Your task to perform on an android device: Show me productivity apps on the Play Store Image 0: 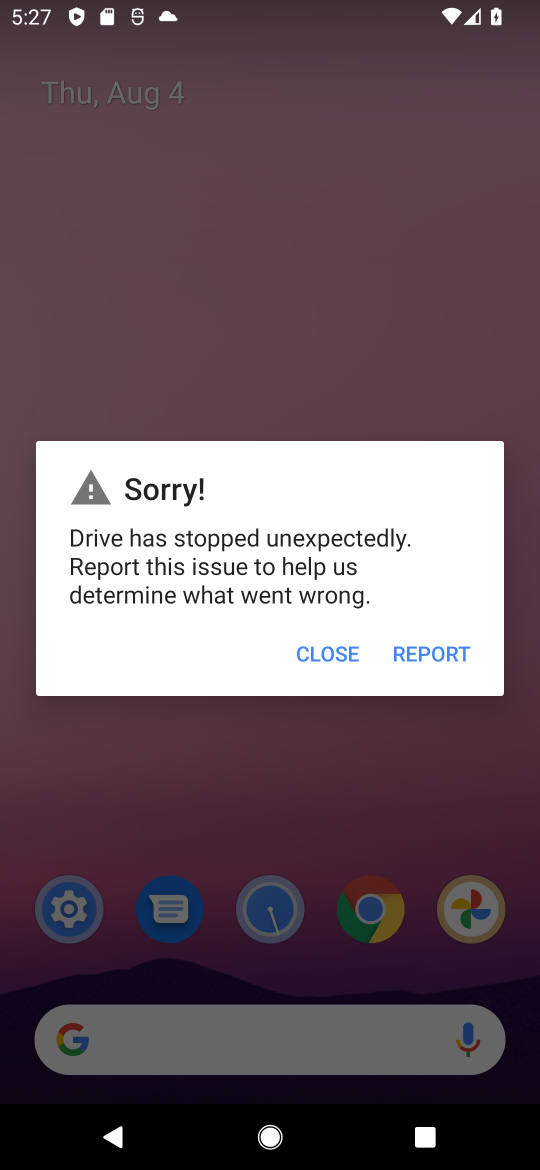
Step 0: press home button
Your task to perform on an android device: Show me productivity apps on the Play Store Image 1: 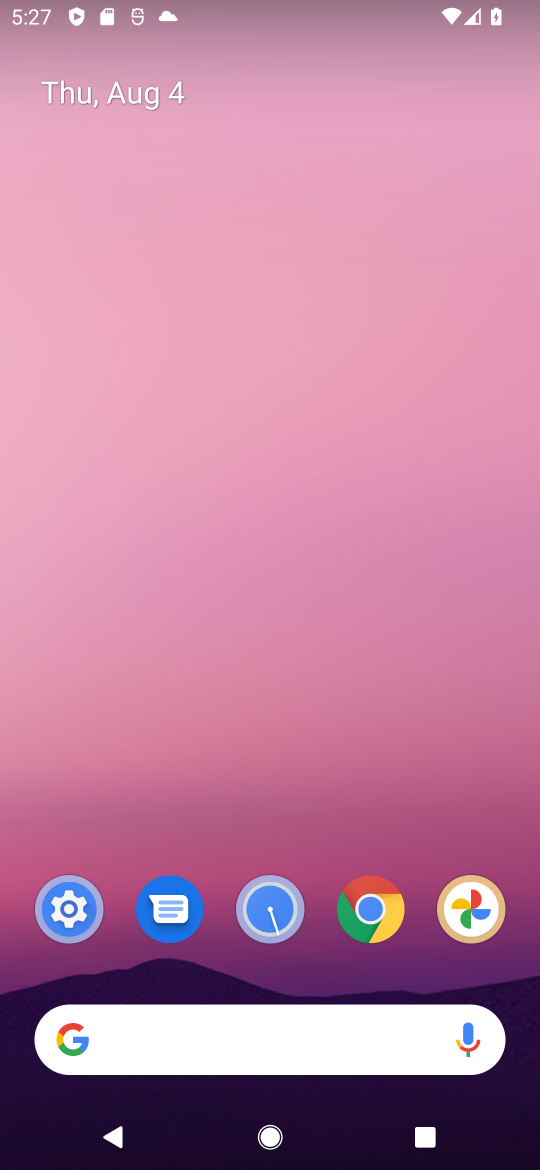
Step 1: drag from (169, 1029) to (223, 231)
Your task to perform on an android device: Show me productivity apps on the Play Store Image 2: 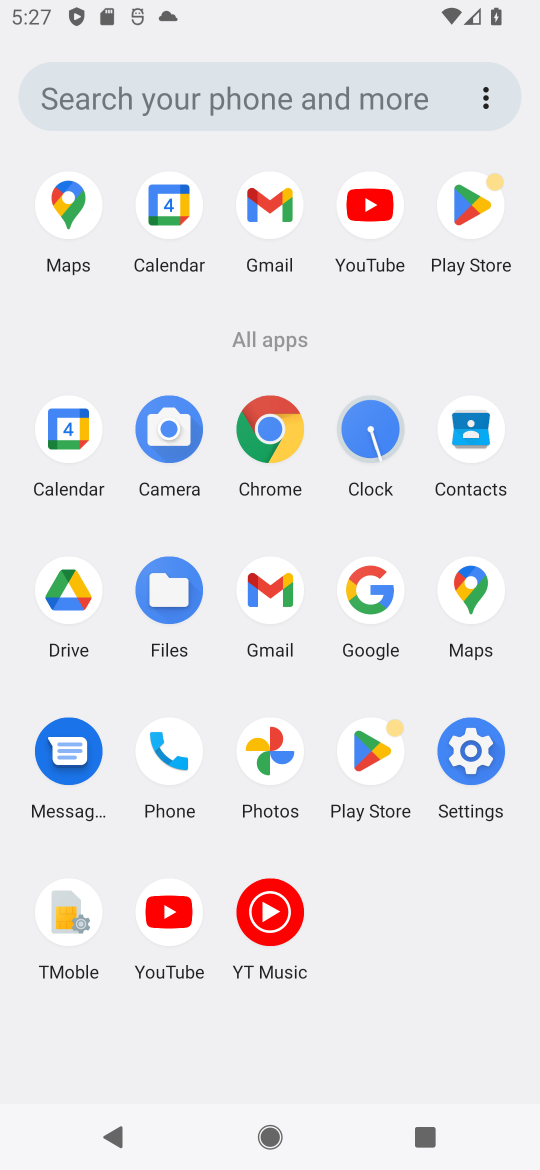
Step 2: click (470, 208)
Your task to perform on an android device: Show me productivity apps on the Play Store Image 3: 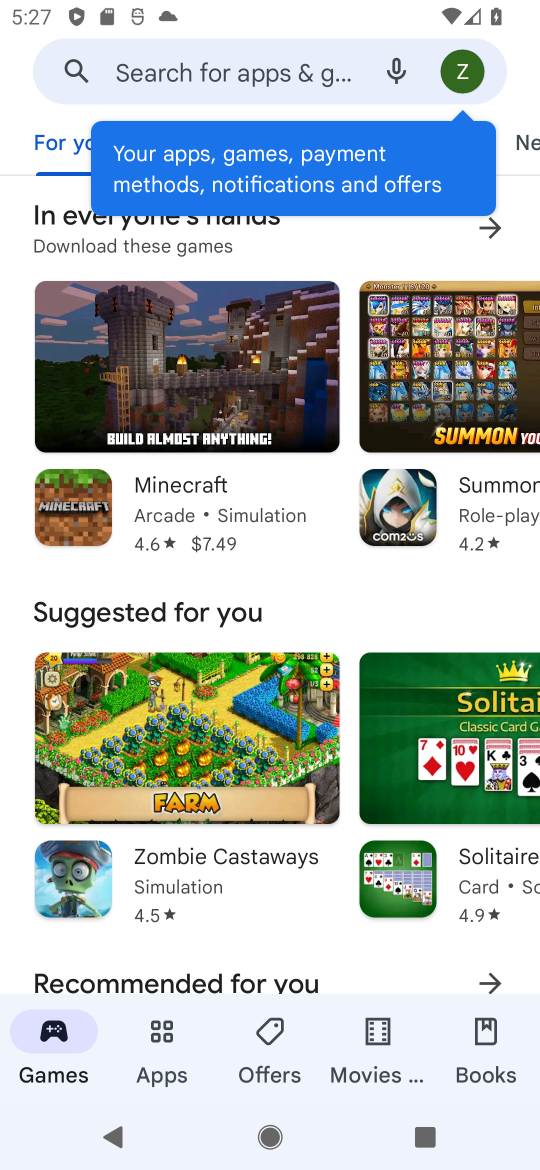
Step 3: click (163, 1038)
Your task to perform on an android device: Show me productivity apps on the Play Store Image 4: 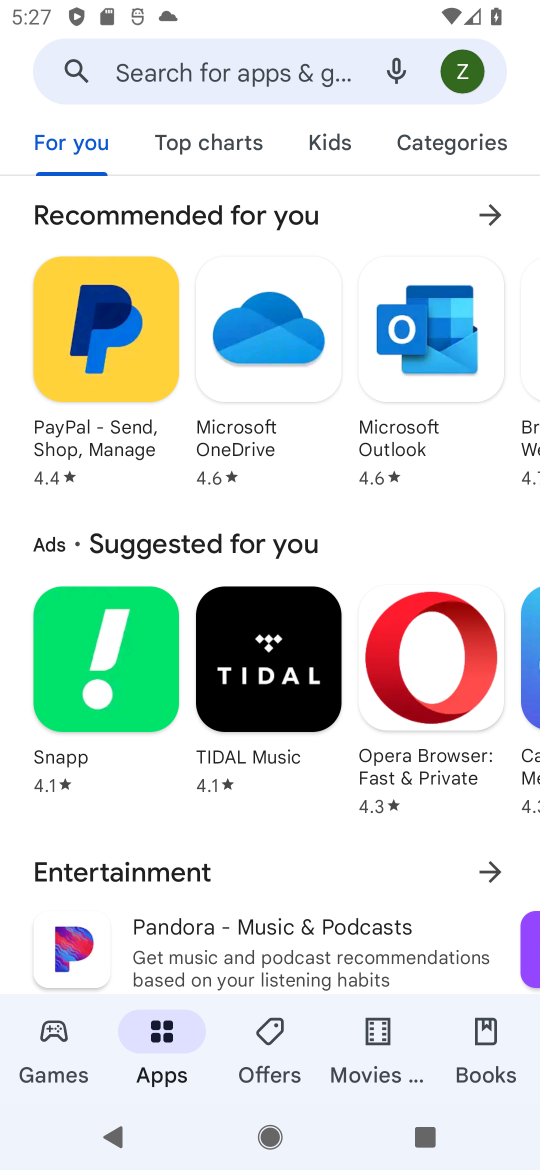
Step 4: click (486, 147)
Your task to perform on an android device: Show me productivity apps on the Play Store Image 5: 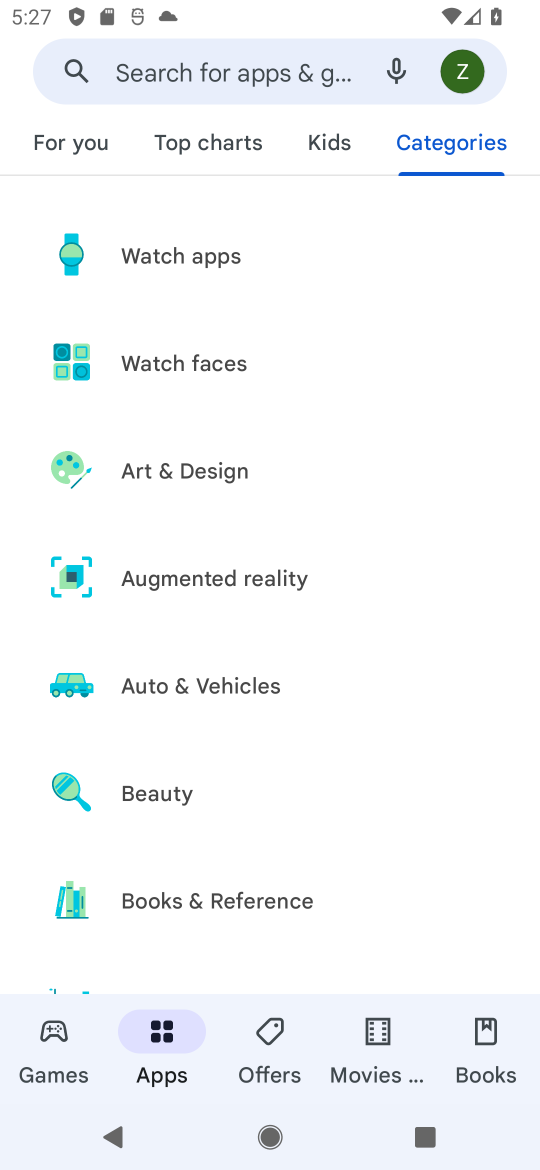
Step 5: drag from (211, 774) to (249, 578)
Your task to perform on an android device: Show me productivity apps on the Play Store Image 6: 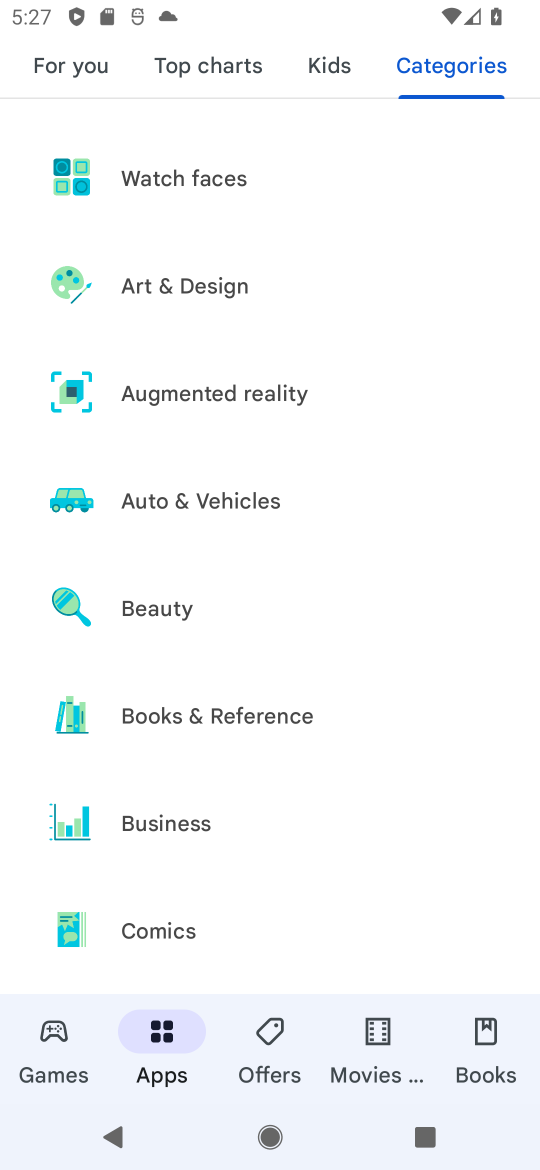
Step 6: drag from (243, 761) to (236, 622)
Your task to perform on an android device: Show me productivity apps on the Play Store Image 7: 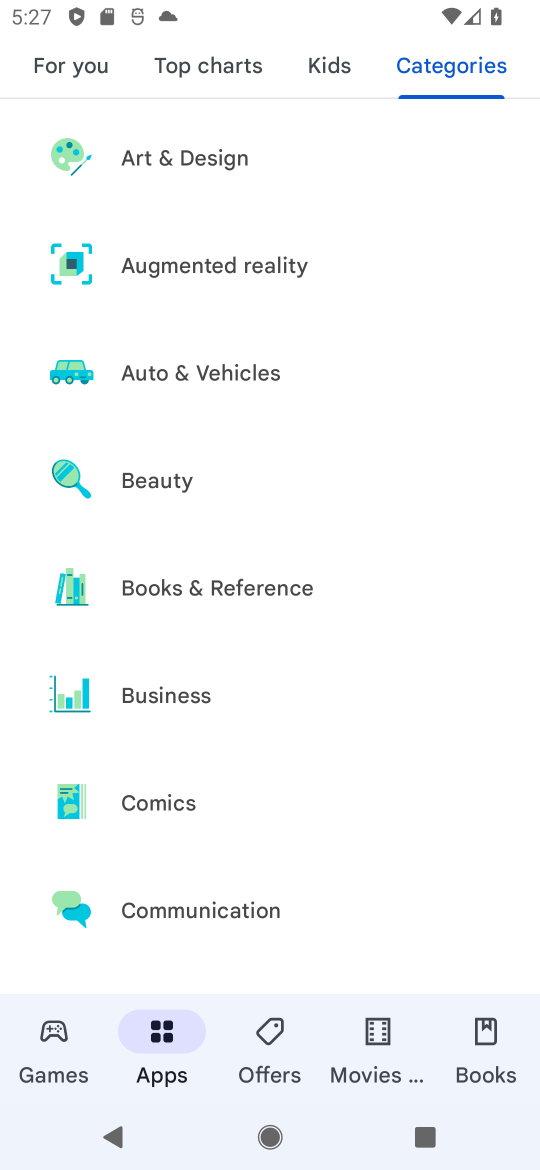
Step 7: drag from (202, 735) to (270, 584)
Your task to perform on an android device: Show me productivity apps on the Play Store Image 8: 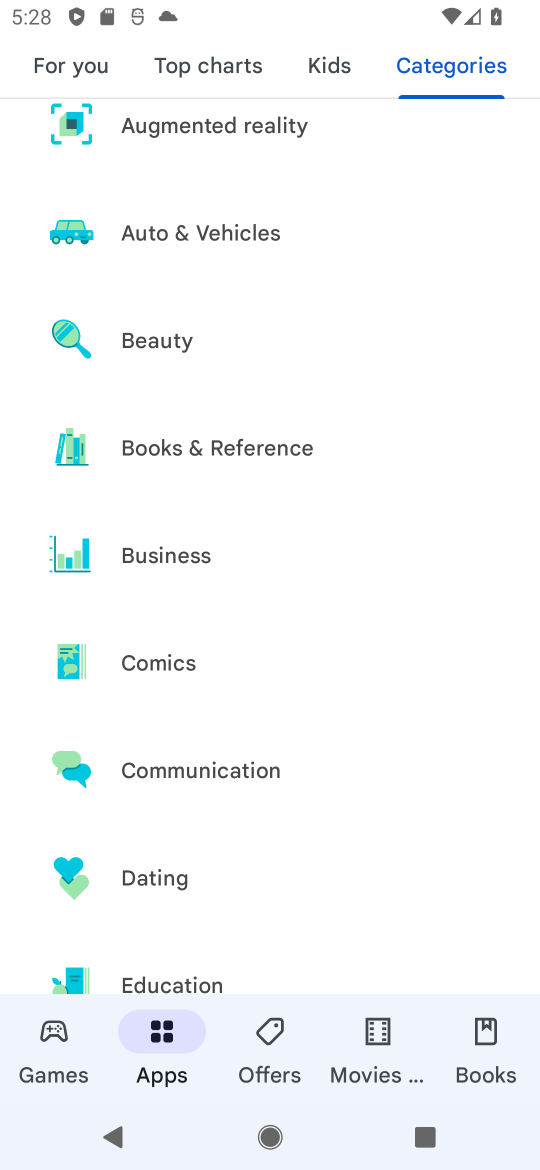
Step 8: drag from (210, 741) to (283, 588)
Your task to perform on an android device: Show me productivity apps on the Play Store Image 9: 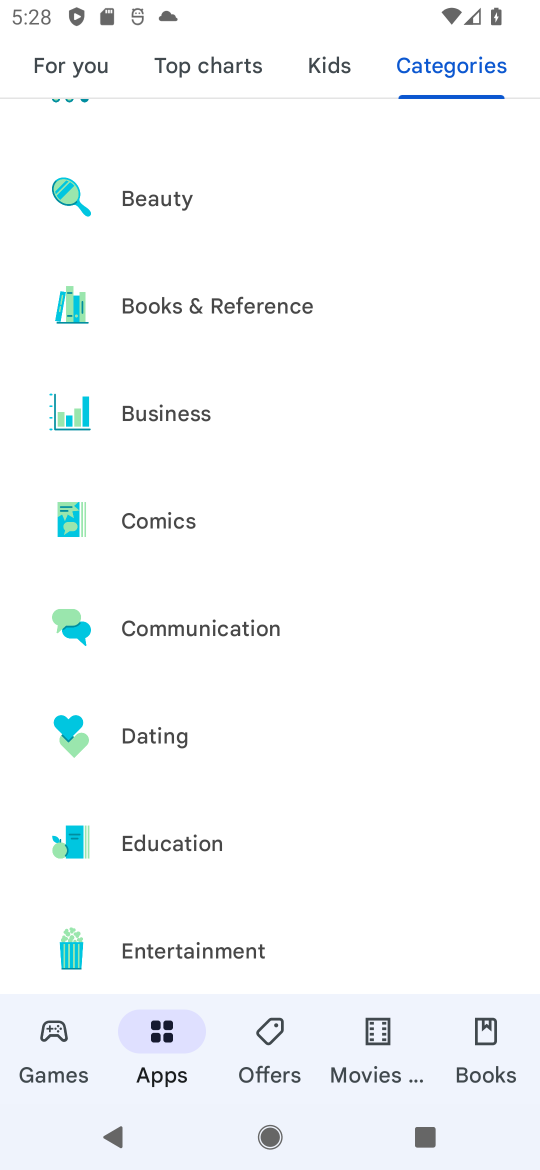
Step 9: drag from (168, 781) to (231, 629)
Your task to perform on an android device: Show me productivity apps on the Play Store Image 10: 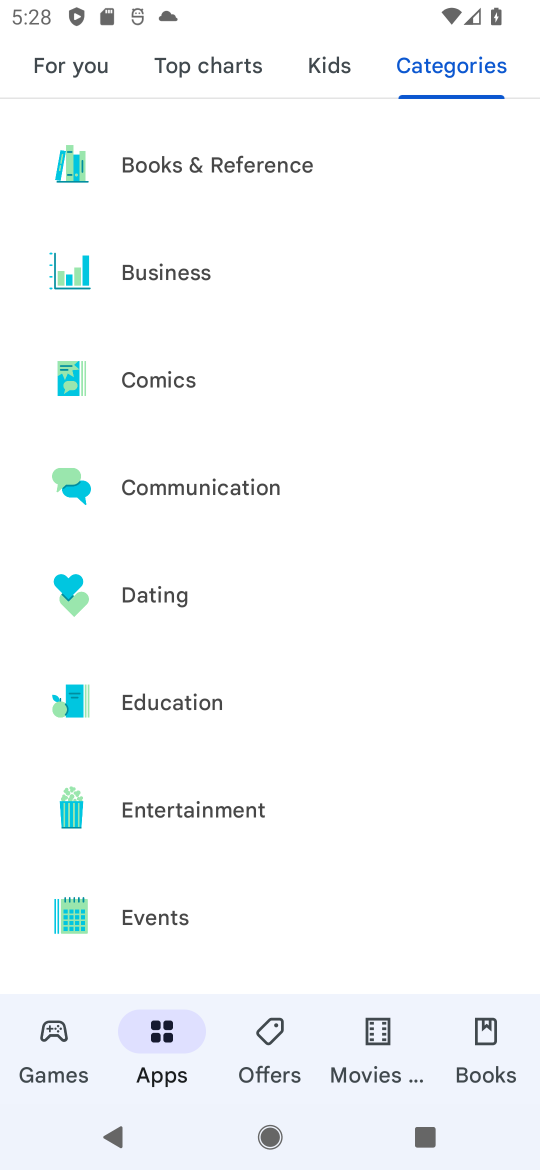
Step 10: drag from (154, 771) to (212, 615)
Your task to perform on an android device: Show me productivity apps on the Play Store Image 11: 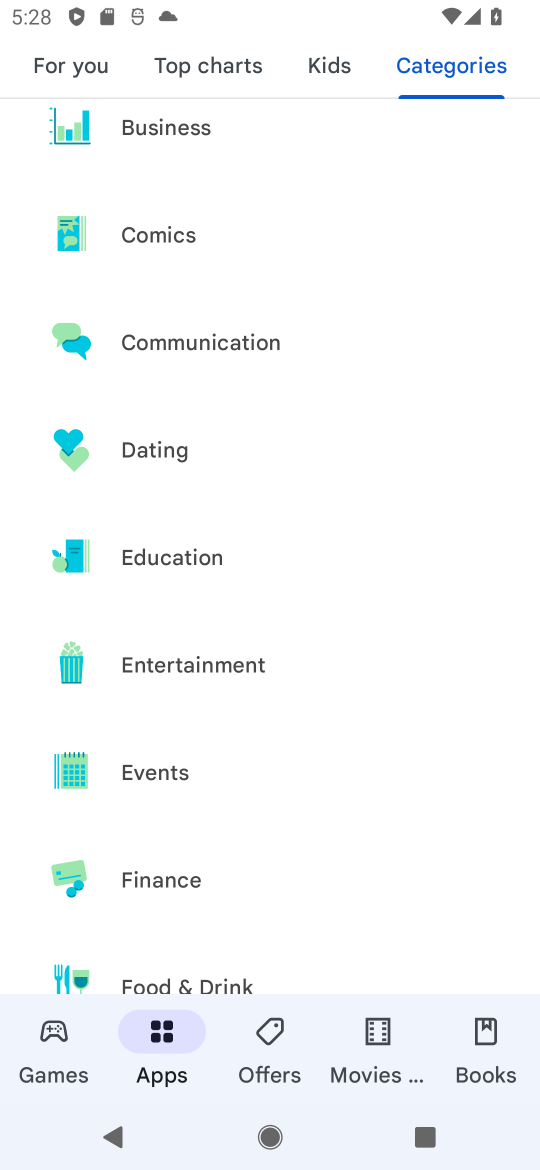
Step 11: drag from (130, 824) to (189, 661)
Your task to perform on an android device: Show me productivity apps on the Play Store Image 12: 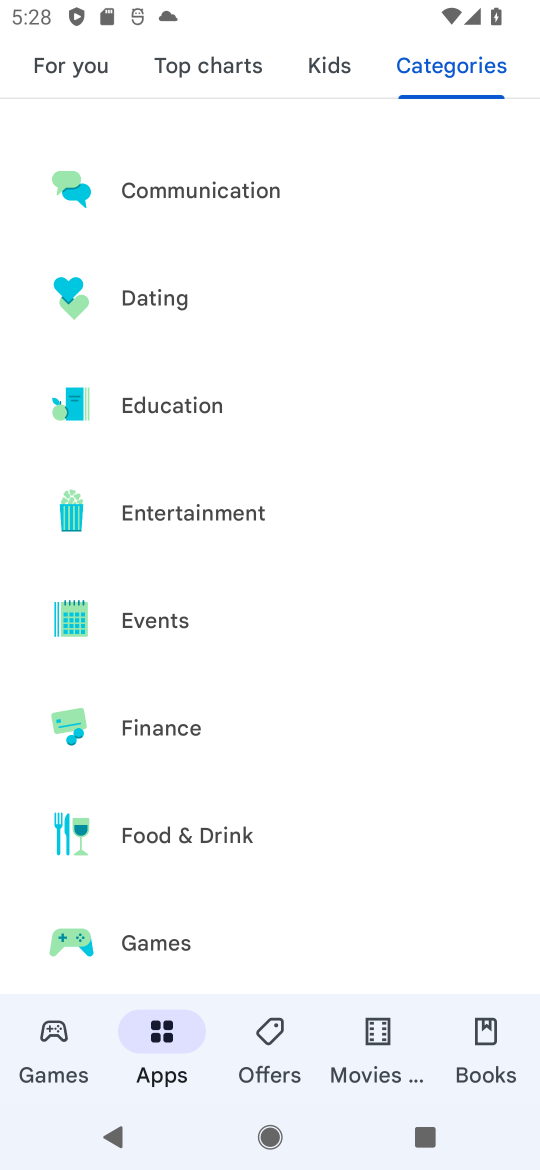
Step 12: drag from (128, 764) to (195, 604)
Your task to perform on an android device: Show me productivity apps on the Play Store Image 13: 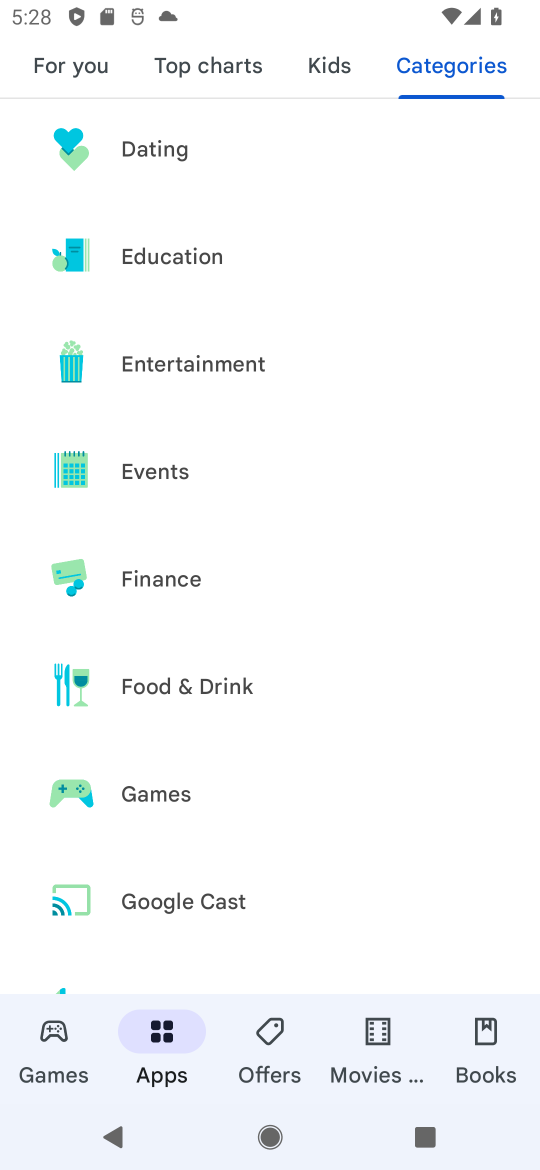
Step 13: drag from (127, 757) to (210, 588)
Your task to perform on an android device: Show me productivity apps on the Play Store Image 14: 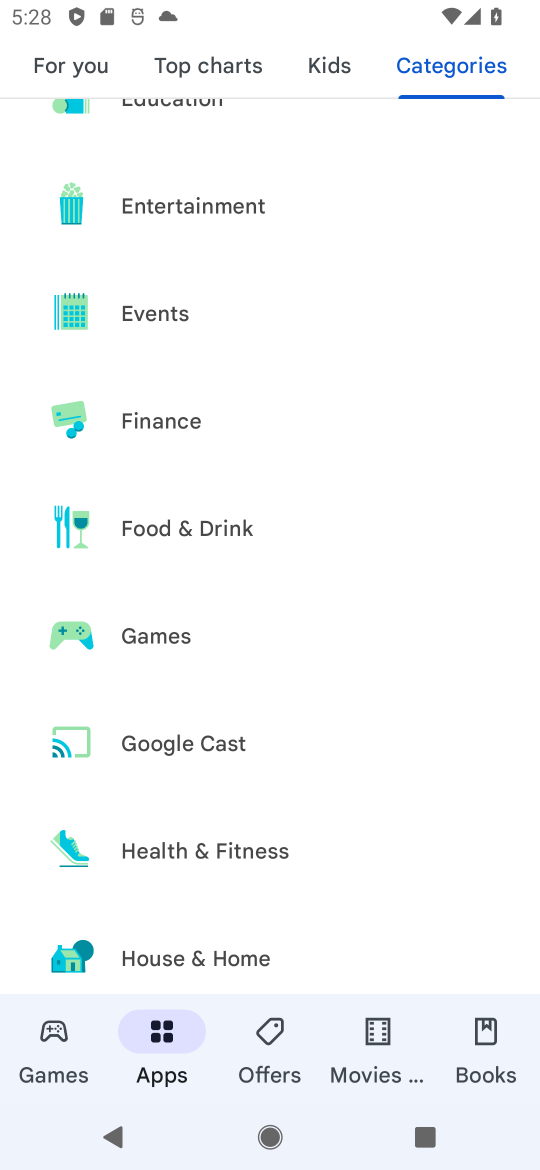
Step 14: drag from (153, 707) to (254, 559)
Your task to perform on an android device: Show me productivity apps on the Play Store Image 15: 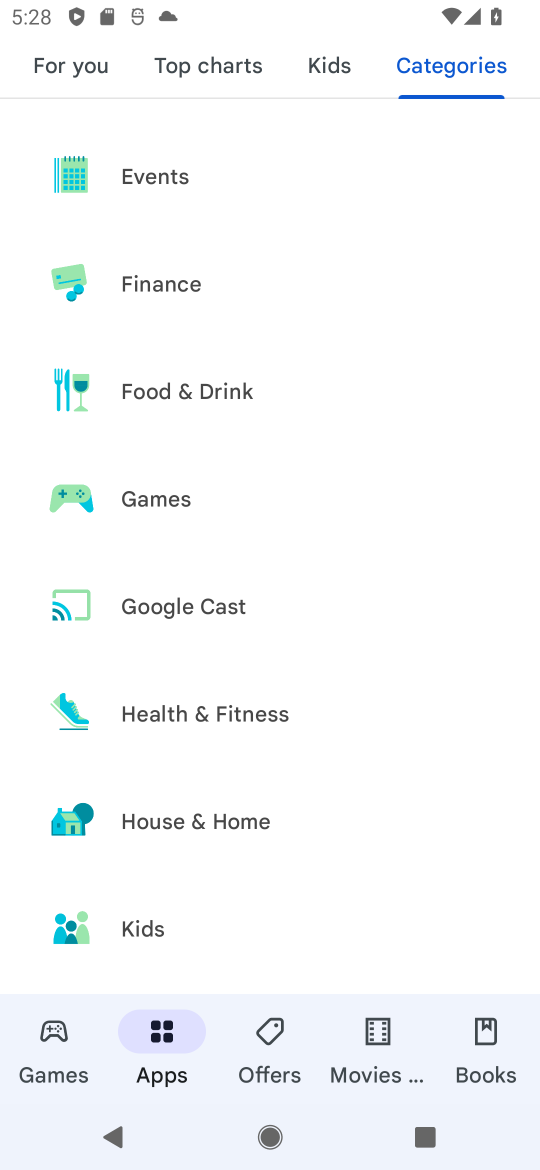
Step 15: drag from (138, 760) to (199, 596)
Your task to perform on an android device: Show me productivity apps on the Play Store Image 16: 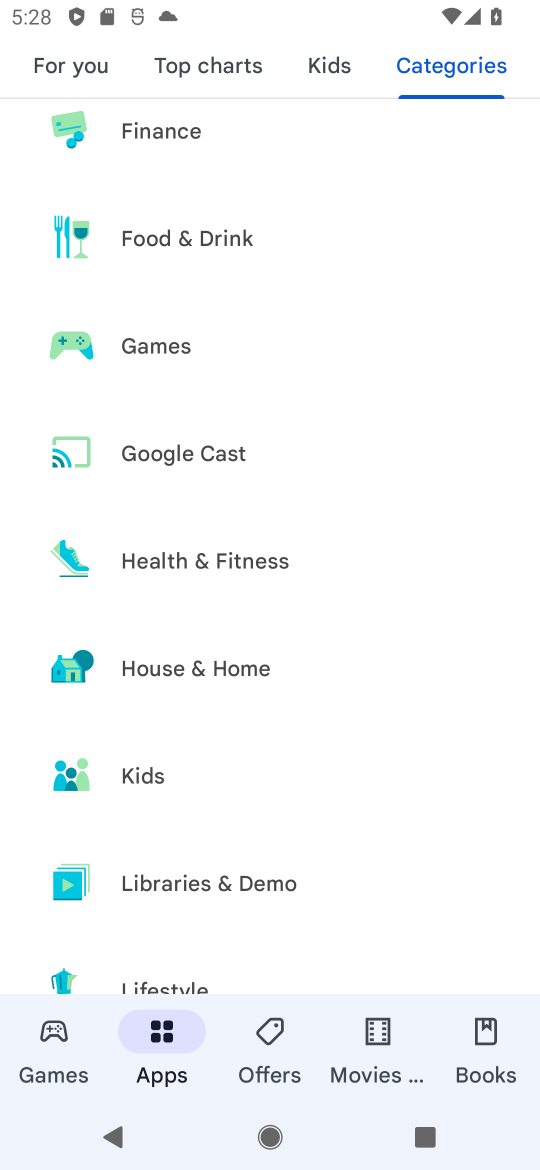
Step 16: drag from (115, 820) to (211, 642)
Your task to perform on an android device: Show me productivity apps on the Play Store Image 17: 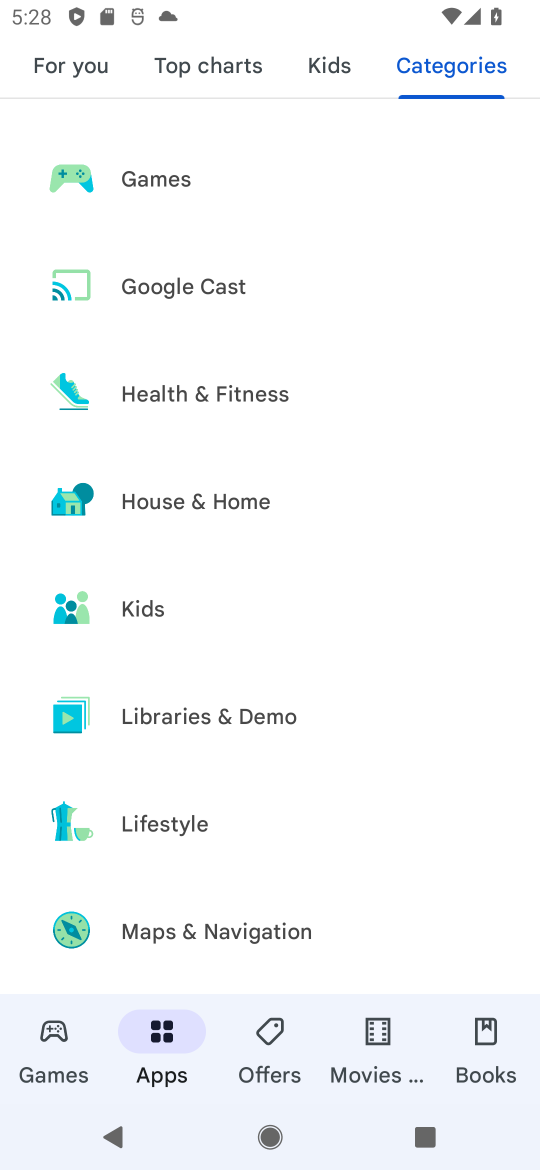
Step 17: drag from (133, 796) to (244, 609)
Your task to perform on an android device: Show me productivity apps on the Play Store Image 18: 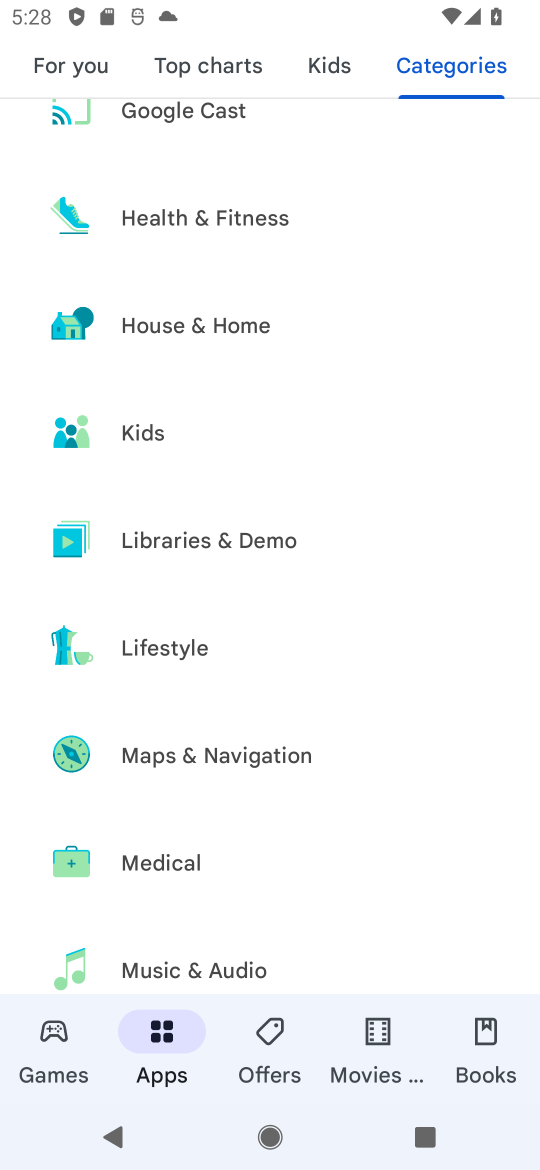
Step 18: drag from (125, 802) to (217, 651)
Your task to perform on an android device: Show me productivity apps on the Play Store Image 19: 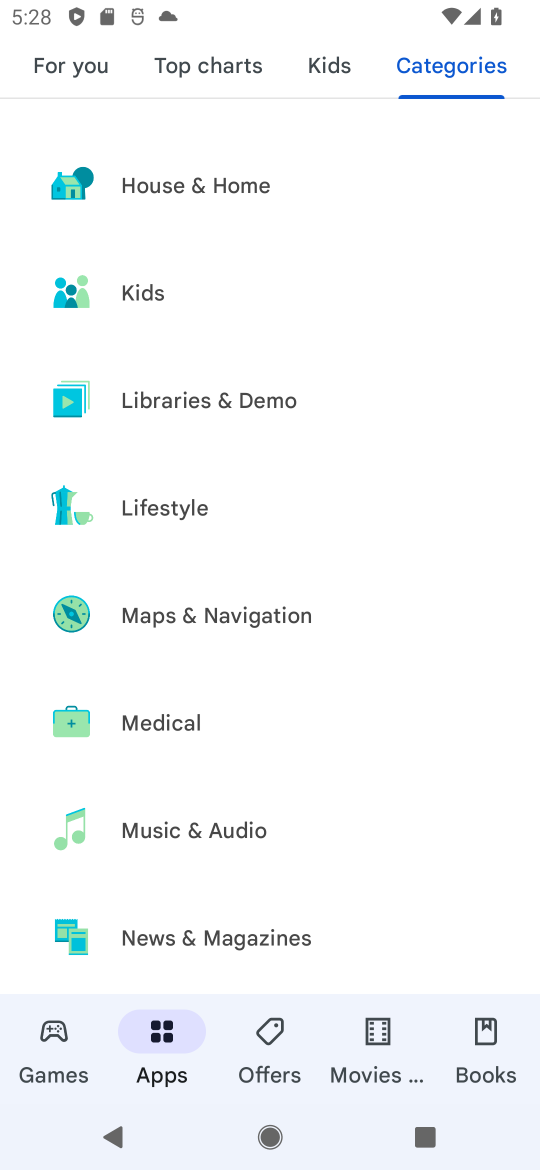
Step 19: drag from (124, 884) to (230, 671)
Your task to perform on an android device: Show me productivity apps on the Play Store Image 20: 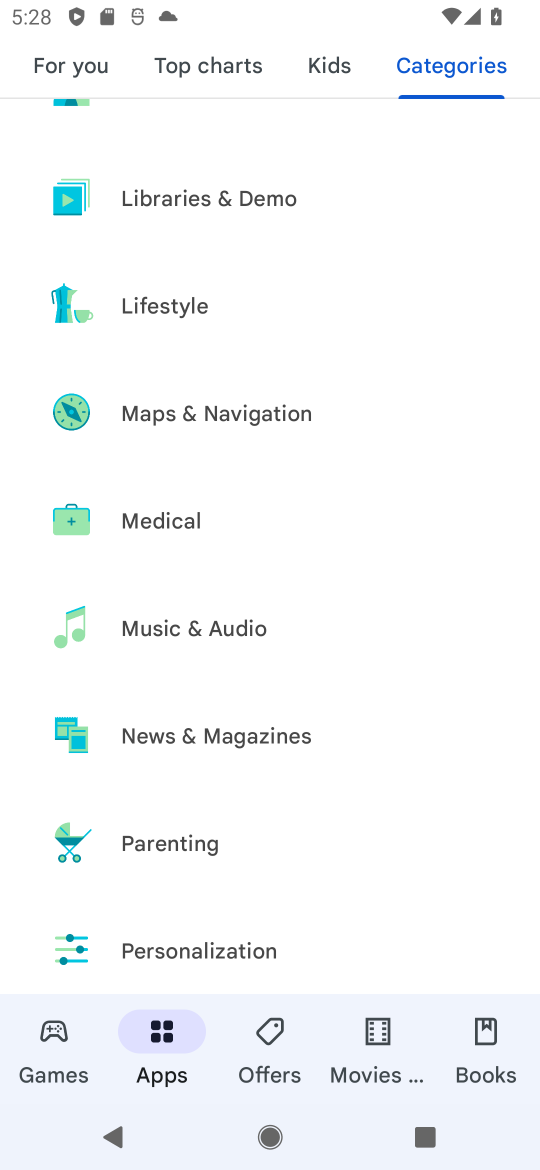
Step 20: drag from (111, 793) to (218, 584)
Your task to perform on an android device: Show me productivity apps on the Play Store Image 21: 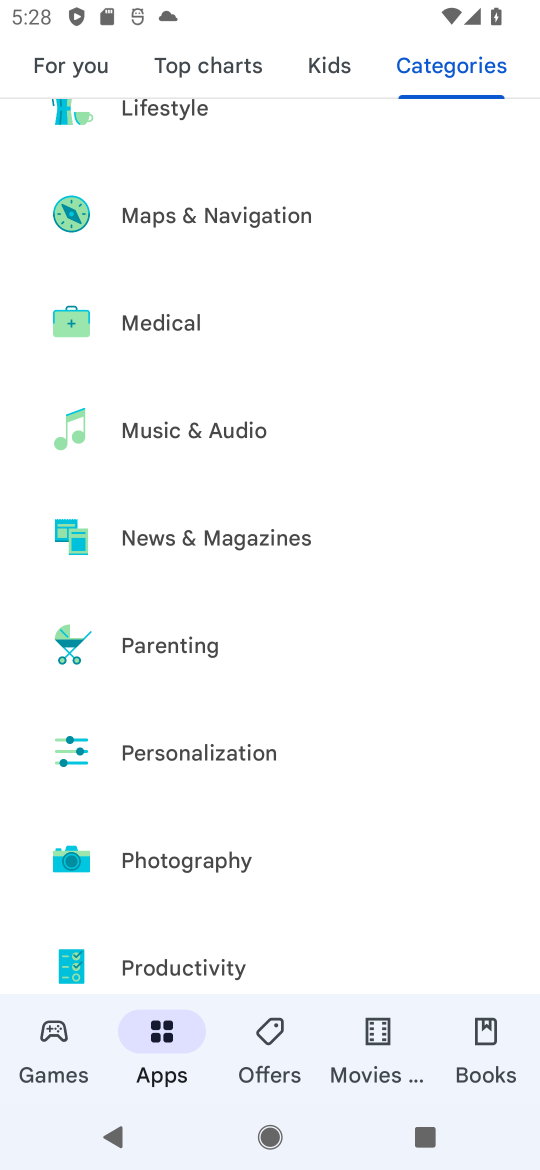
Step 21: drag from (187, 798) to (260, 661)
Your task to perform on an android device: Show me productivity apps on the Play Store Image 22: 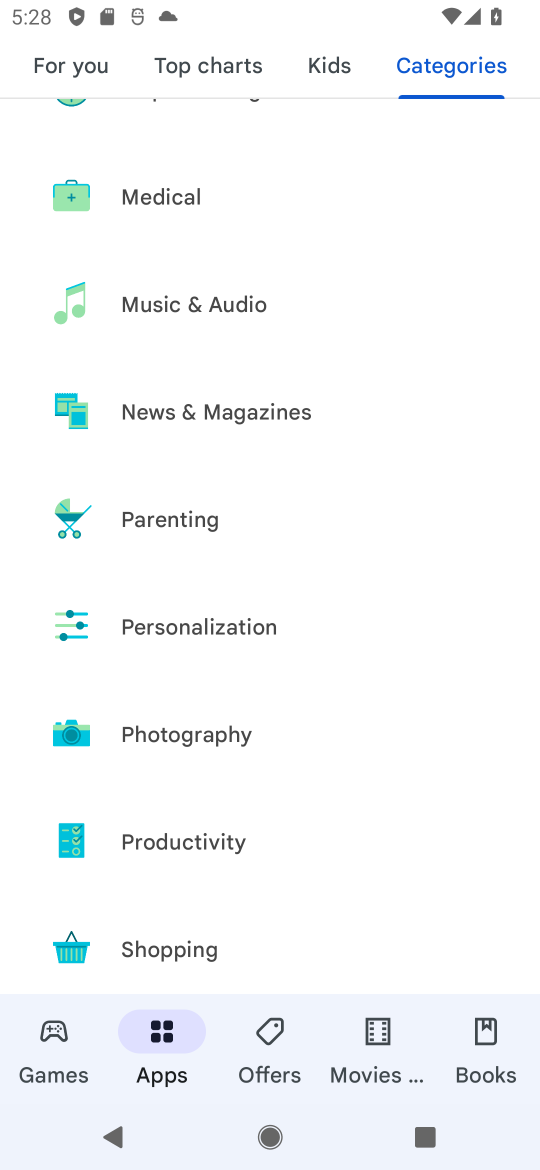
Step 22: click (212, 846)
Your task to perform on an android device: Show me productivity apps on the Play Store Image 23: 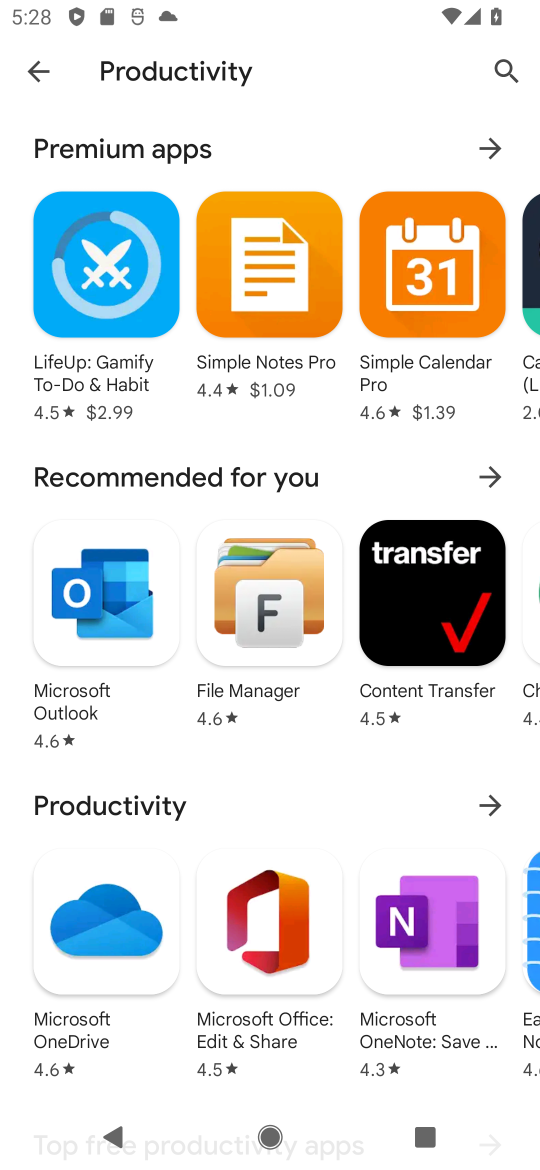
Step 23: task complete